Your task to perform on an android device: Show the shopping cart on bestbuy.com. Image 0: 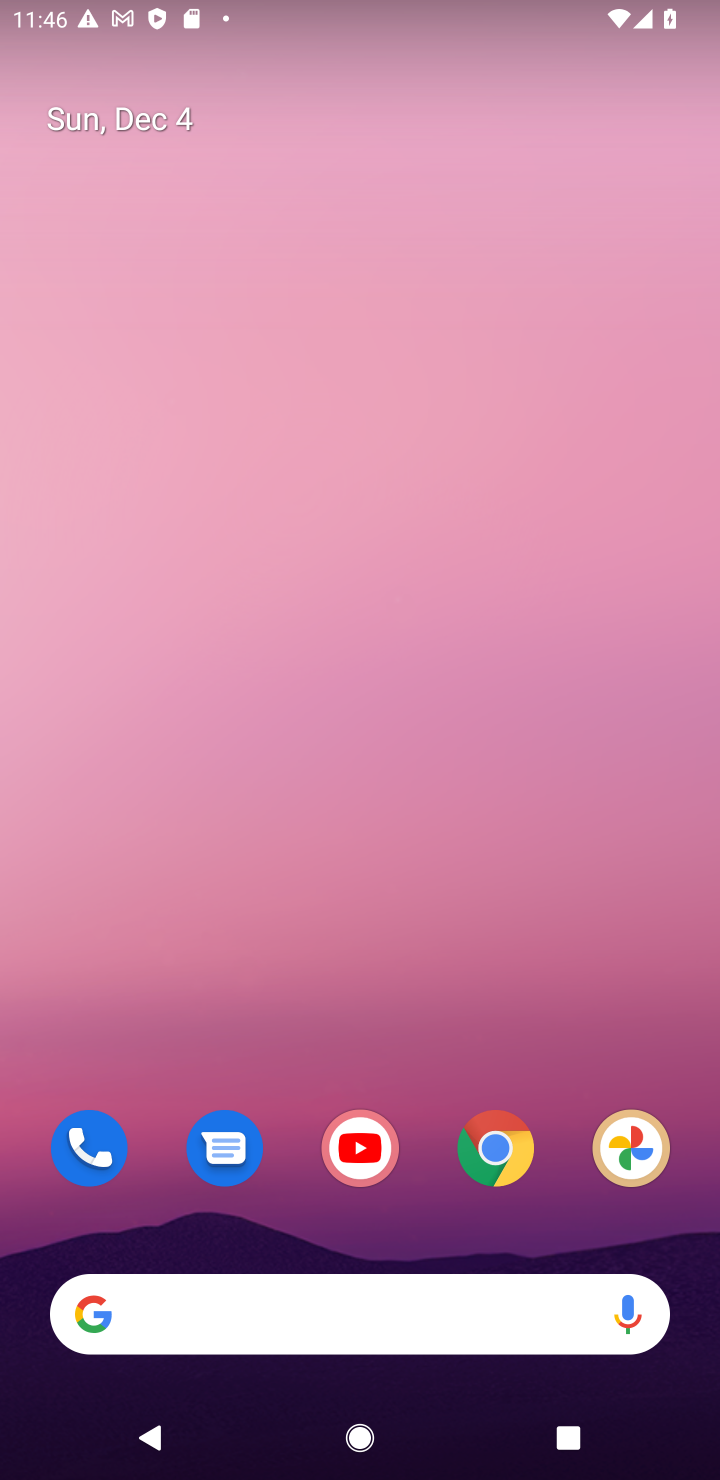
Step 0: drag from (360, 1303) to (321, 245)
Your task to perform on an android device: Show the shopping cart on bestbuy.com. Image 1: 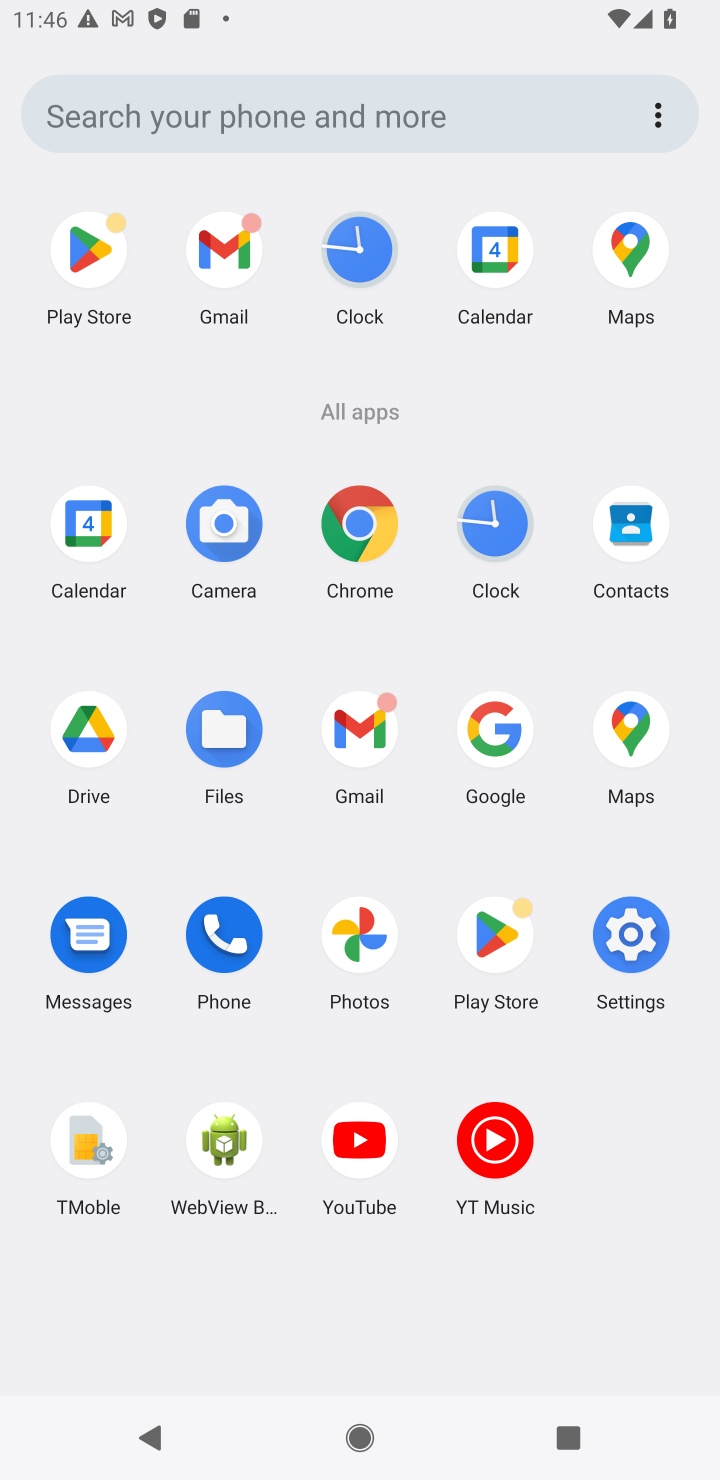
Step 1: click (506, 734)
Your task to perform on an android device: Show the shopping cart on bestbuy.com. Image 2: 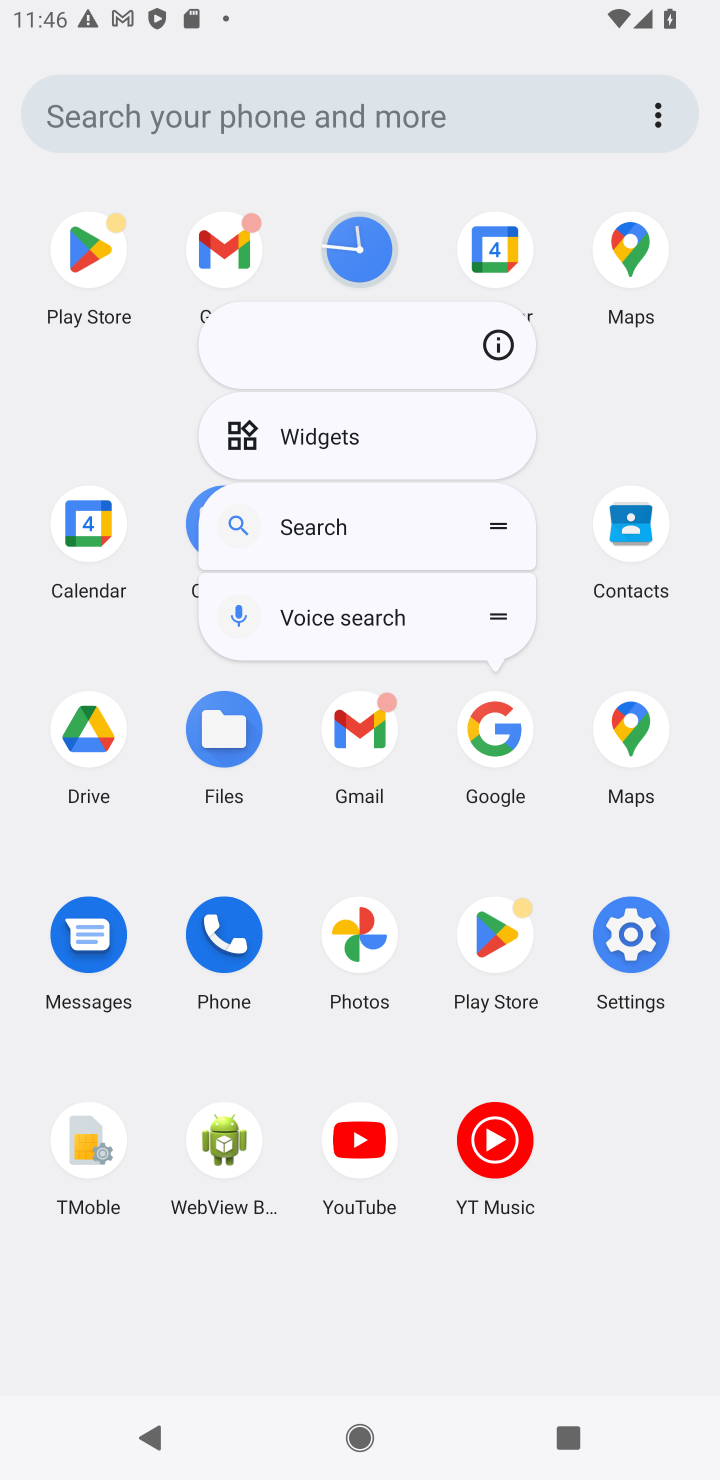
Step 2: click (492, 736)
Your task to perform on an android device: Show the shopping cart on bestbuy.com. Image 3: 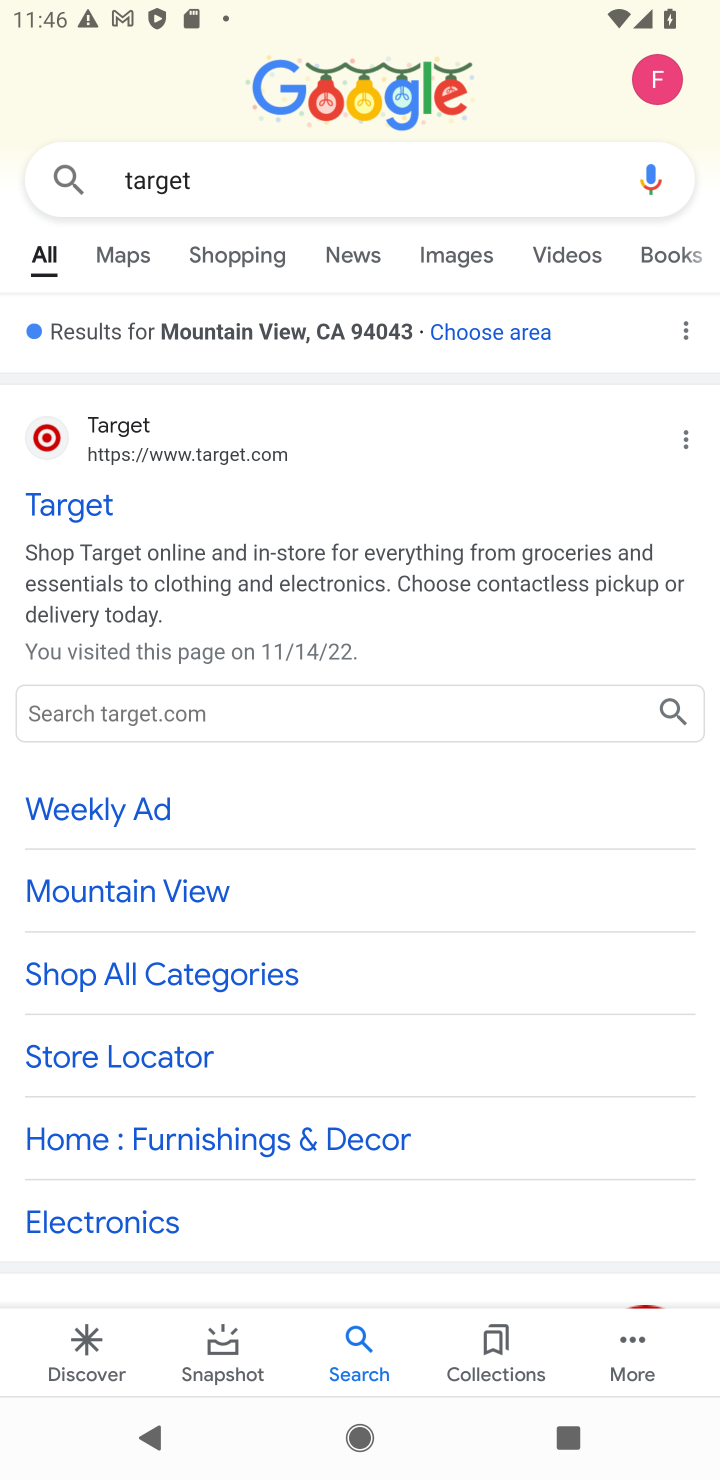
Step 3: click (172, 192)
Your task to perform on an android device: Show the shopping cart on bestbuy.com. Image 4: 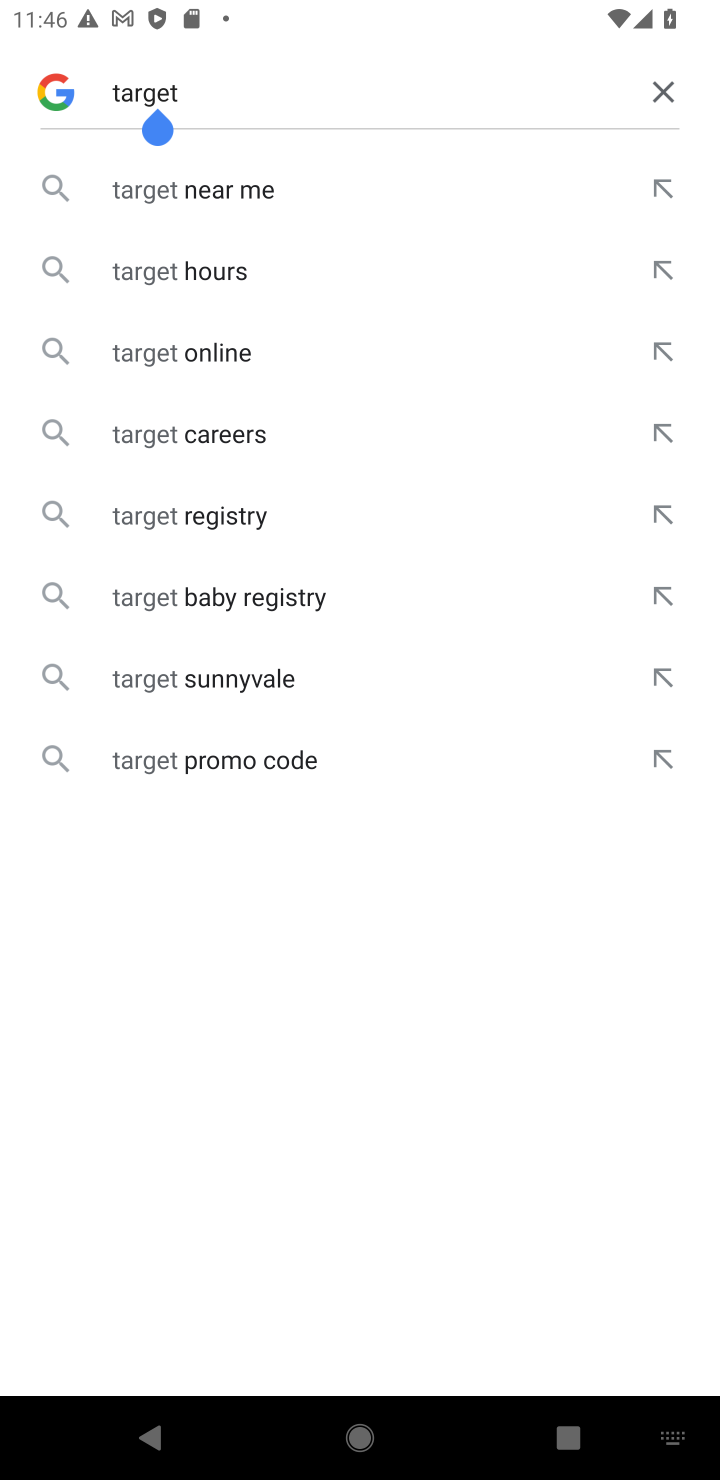
Step 4: click (656, 100)
Your task to perform on an android device: Show the shopping cart on bestbuy.com. Image 5: 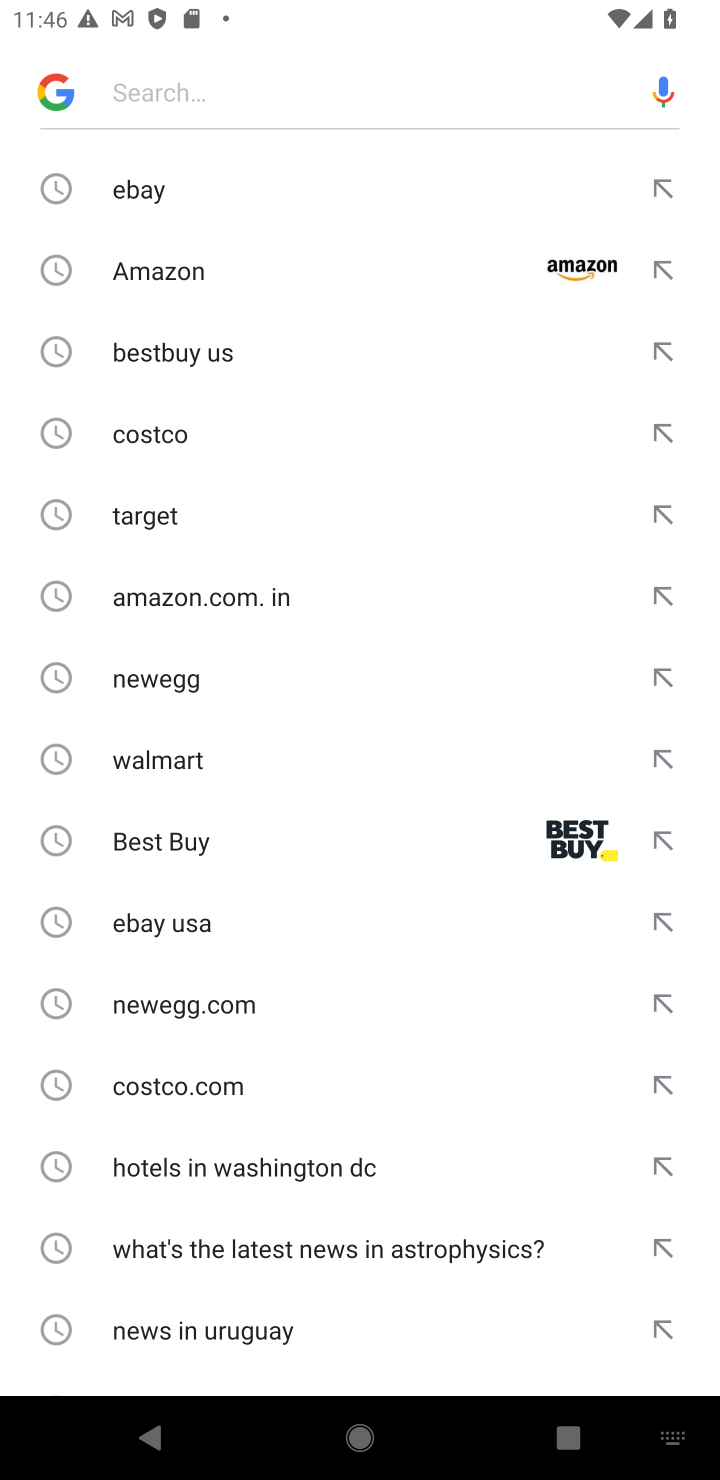
Step 5: click (661, 845)
Your task to perform on an android device: Show the shopping cart on bestbuy.com. Image 6: 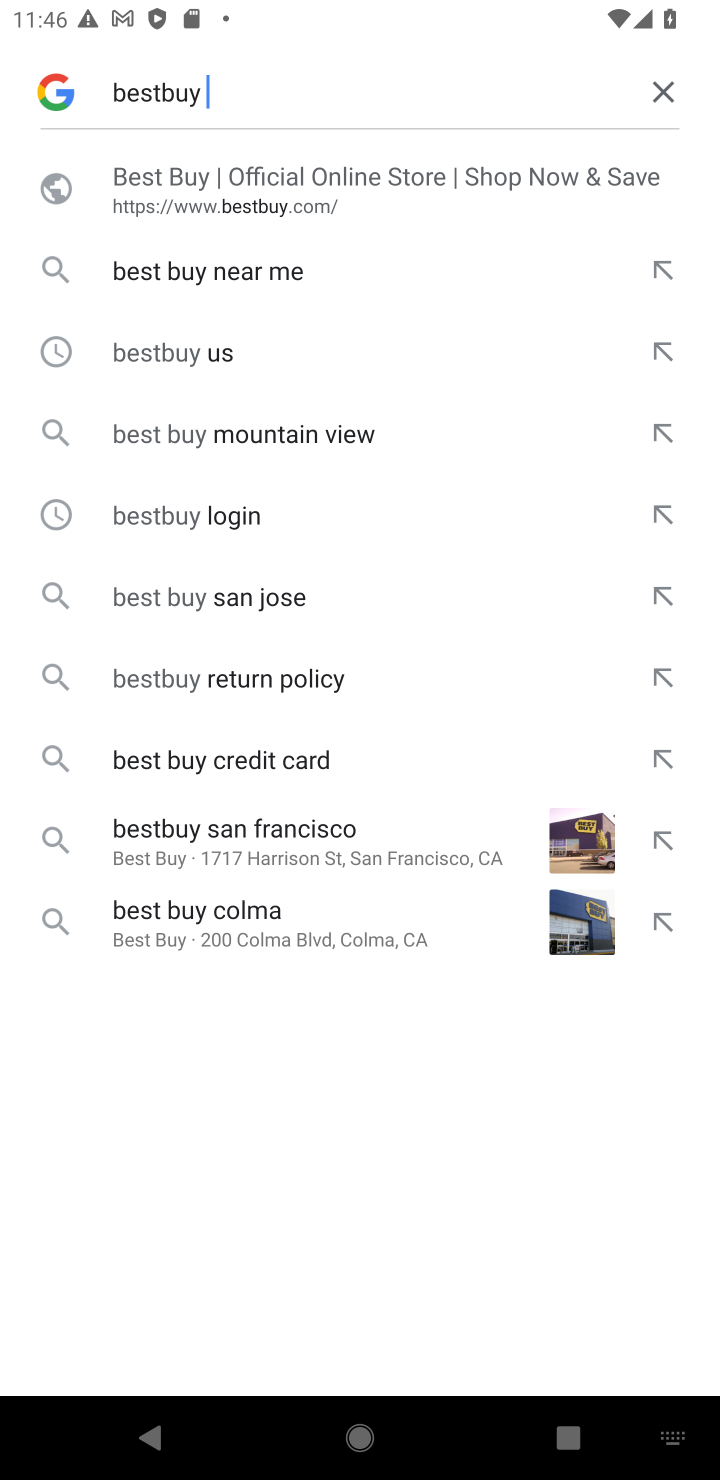
Step 6: click (224, 214)
Your task to perform on an android device: Show the shopping cart on bestbuy.com. Image 7: 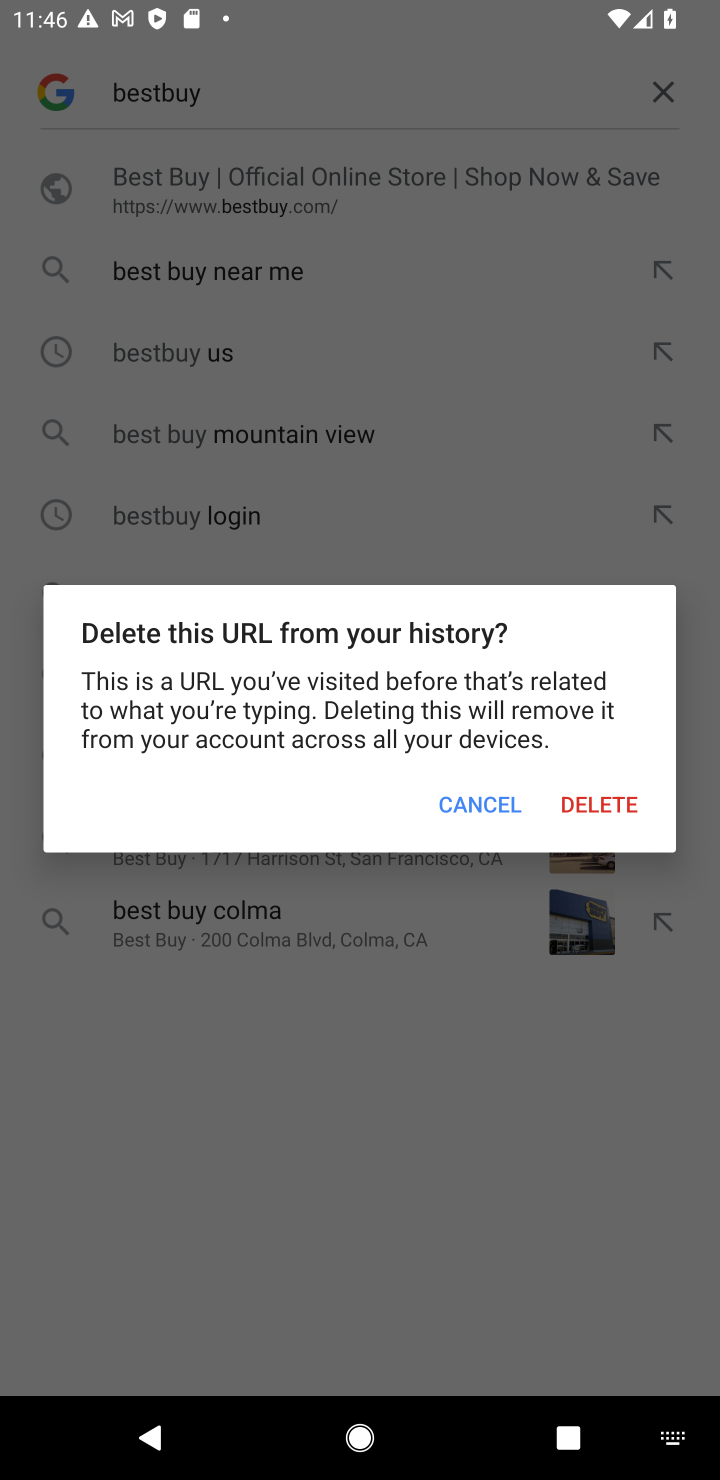
Step 7: click (481, 808)
Your task to perform on an android device: Show the shopping cart on bestbuy.com. Image 8: 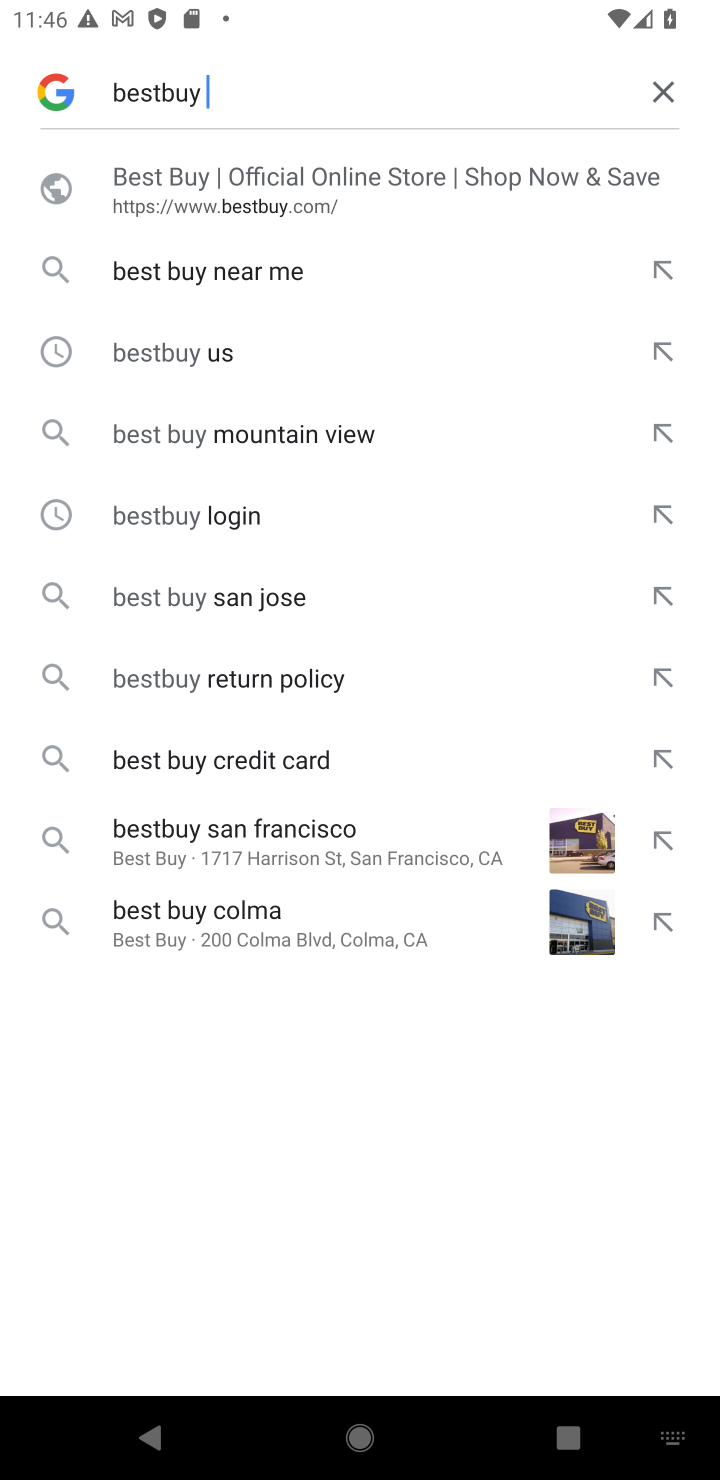
Step 8: click (328, 177)
Your task to perform on an android device: Show the shopping cart on bestbuy.com. Image 9: 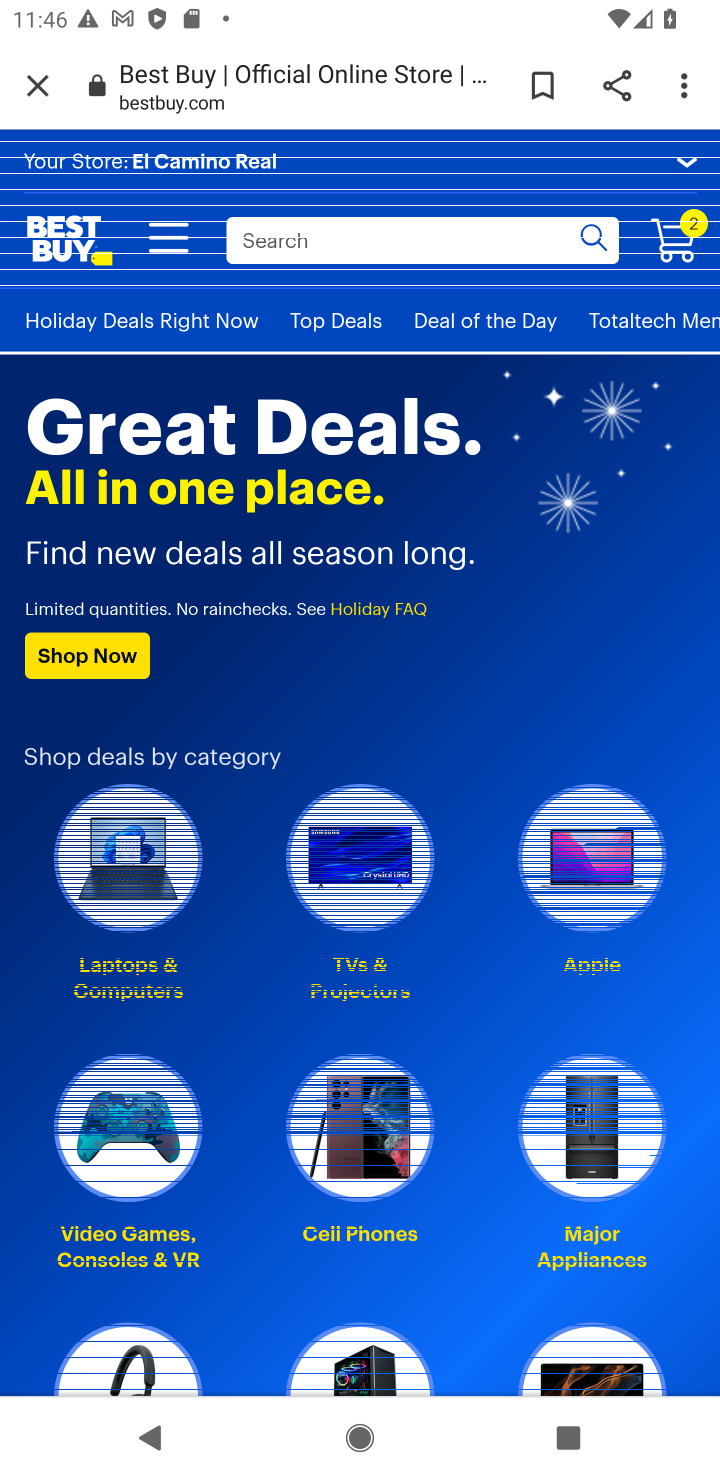
Step 9: click (694, 238)
Your task to perform on an android device: Show the shopping cart on bestbuy.com. Image 10: 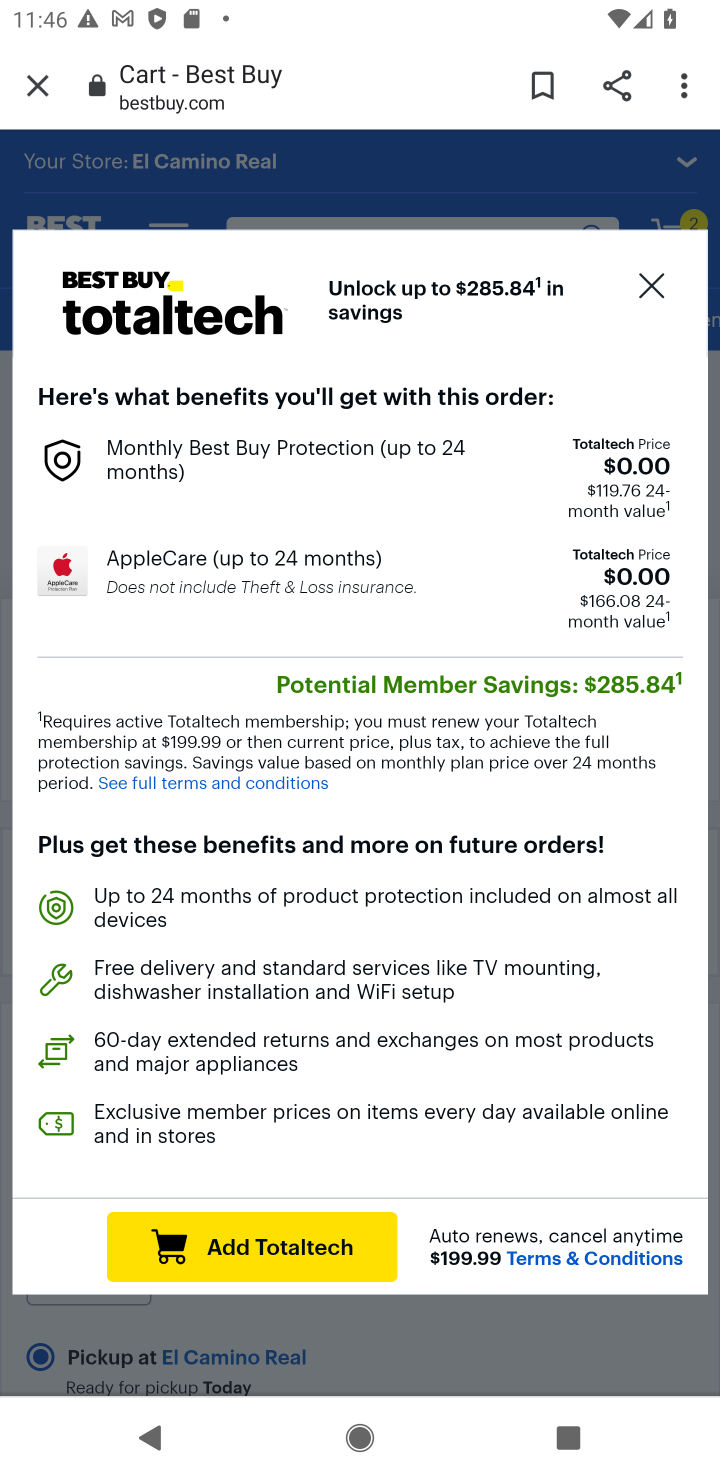
Step 10: click (638, 295)
Your task to perform on an android device: Show the shopping cart on bestbuy.com. Image 11: 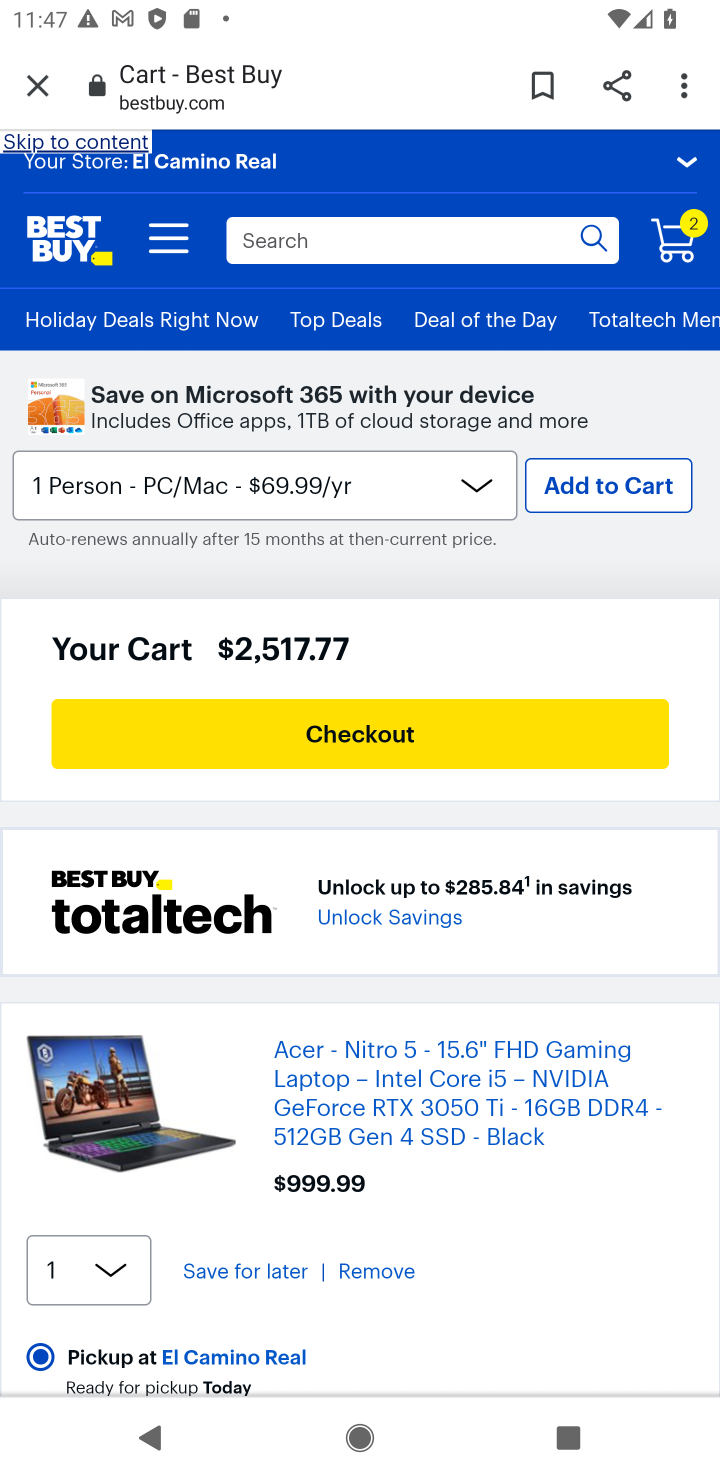
Step 11: task complete